Your task to perform on an android device: turn on sleep mode Image 0: 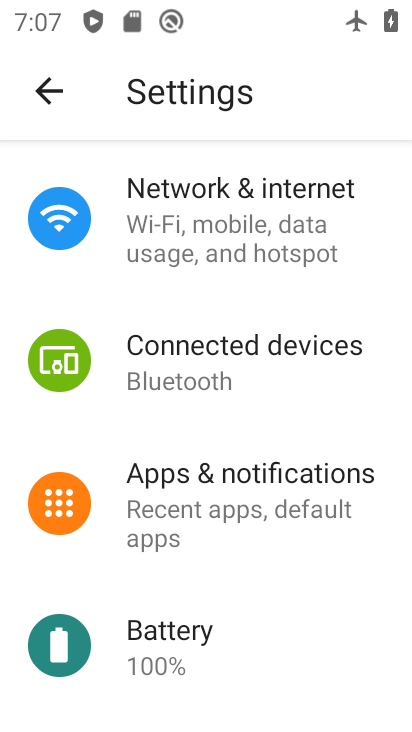
Step 0: drag from (293, 535) to (253, 309)
Your task to perform on an android device: turn on sleep mode Image 1: 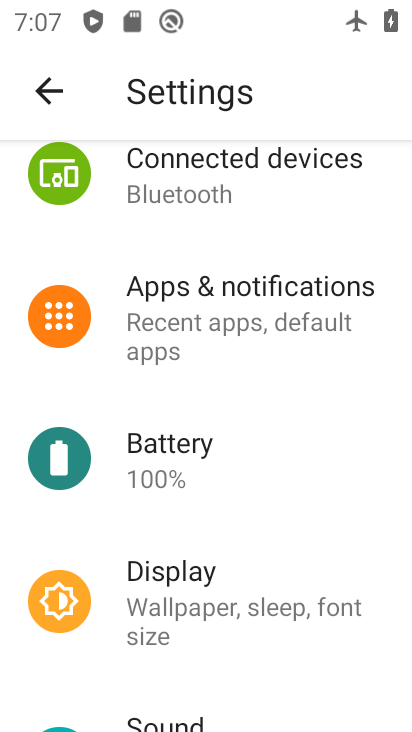
Step 1: click (175, 572)
Your task to perform on an android device: turn on sleep mode Image 2: 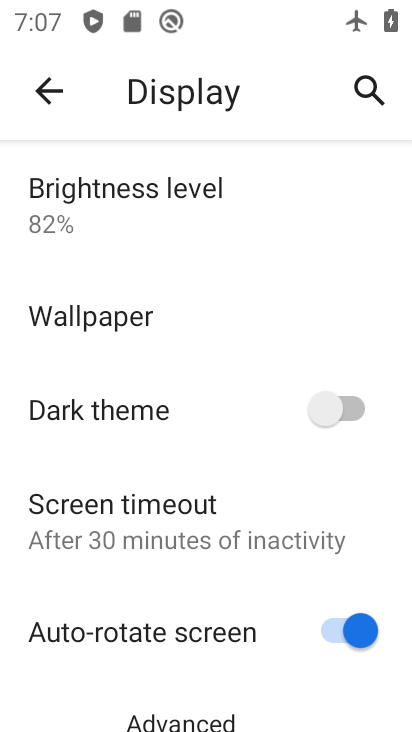
Step 2: task complete